Your task to perform on an android device: change timer sound Image 0: 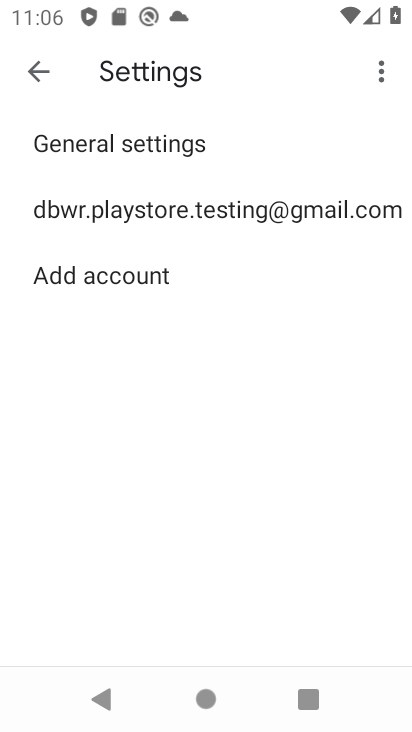
Step 0: click (36, 62)
Your task to perform on an android device: change timer sound Image 1: 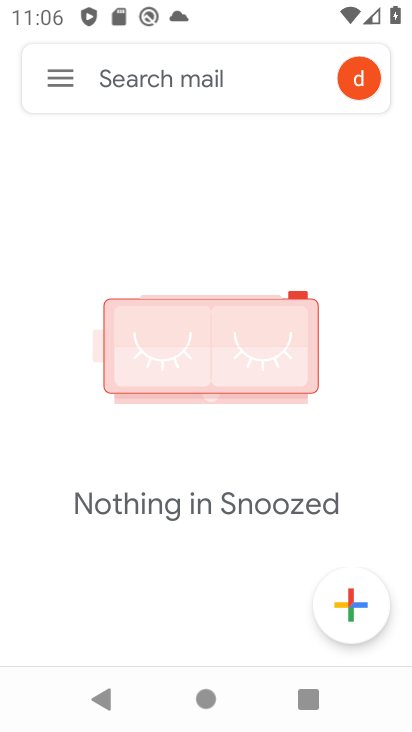
Step 1: click (36, 71)
Your task to perform on an android device: change timer sound Image 2: 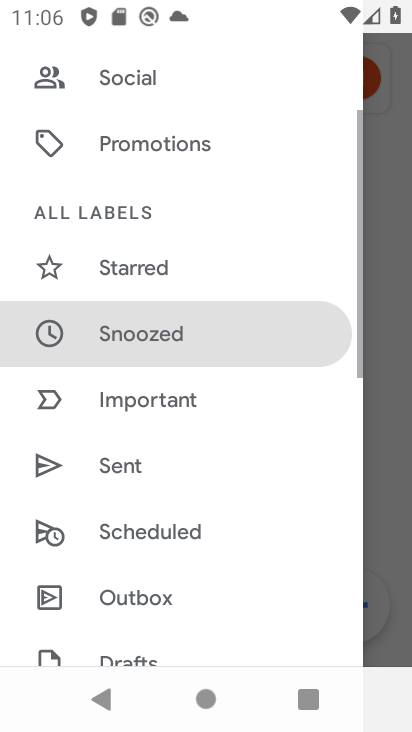
Step 2: press back button
Your task to perform on an android device: change timer sound Image 3: 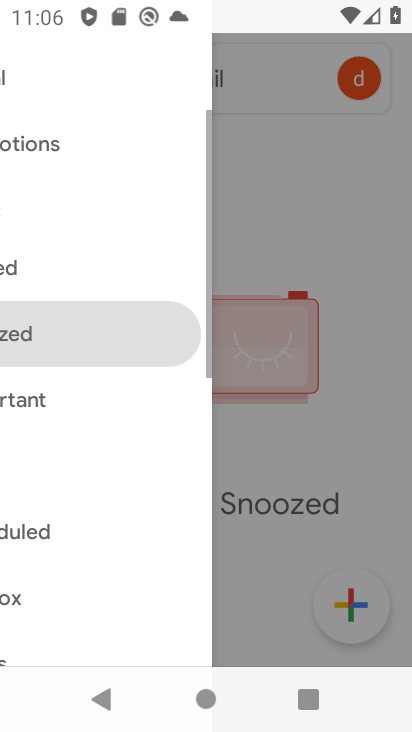
Step 3: press back button
Your task to perform on an android device: change timer sound Image 4: 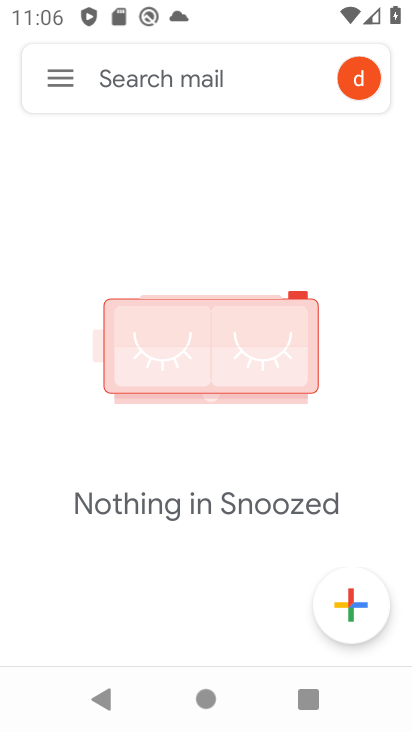
Step 4: press back button
Your task to perform on an android device: change timer sound Image 5: 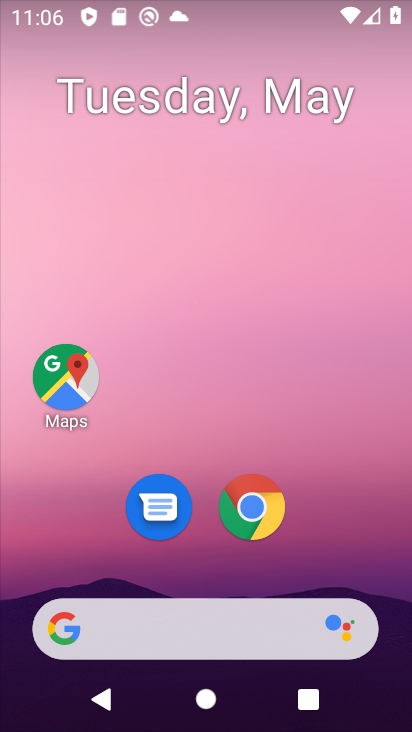
Step 5: drag from (254, 710) to (127, 151)
Your task to perform on an android device: change timer sound Image 6: 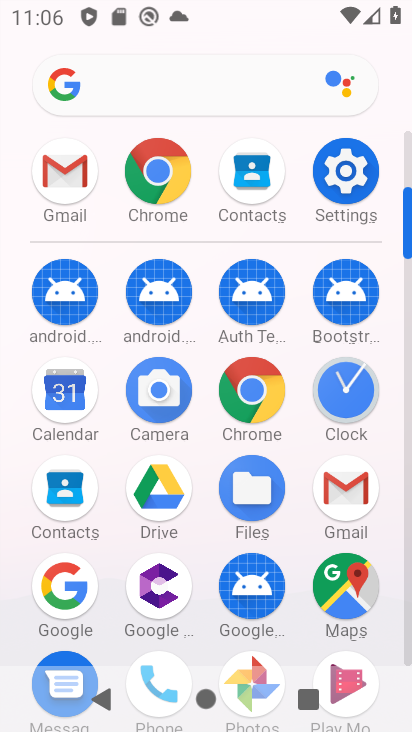
Step 6: click (353, 394)
Your task to perform on an android device: change timer sound Image 7: 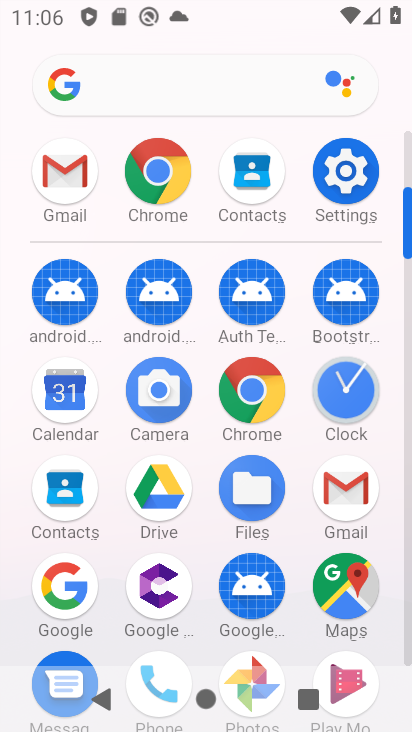
Step 7: click (353, 394)
Your task to perform on an android device: change timer sound Image 8: 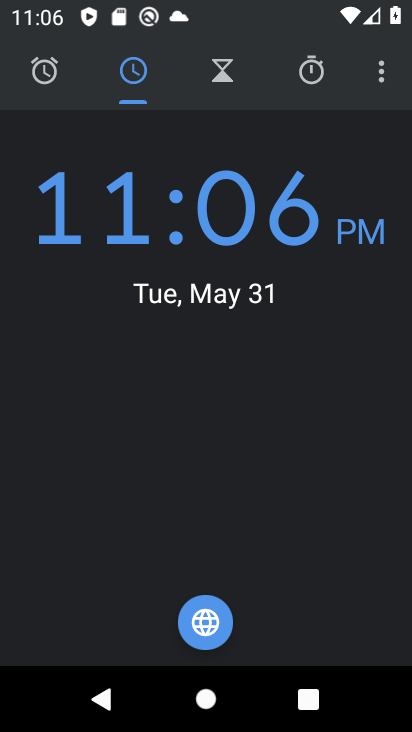
Step 8: click (335, 396)
Your task to perform on an android device: change timer sound Image 9: 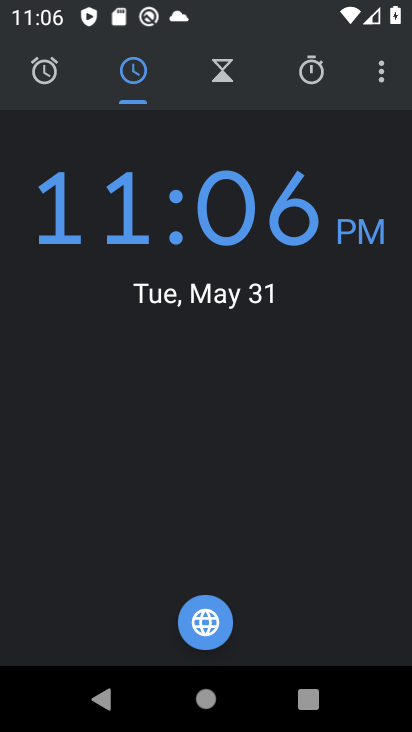
Step 9: click (380, 74)
Your task to perform on an android device: change timer sound Image 10: 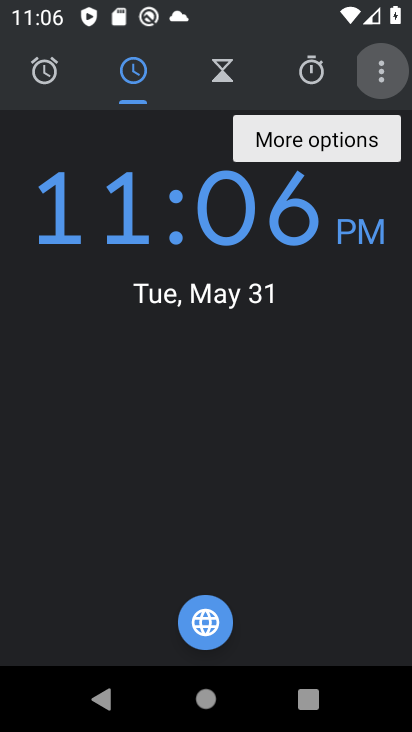
Step 10: click (381, 75)
Your task to perform on an android device: change timer sound Image 11: 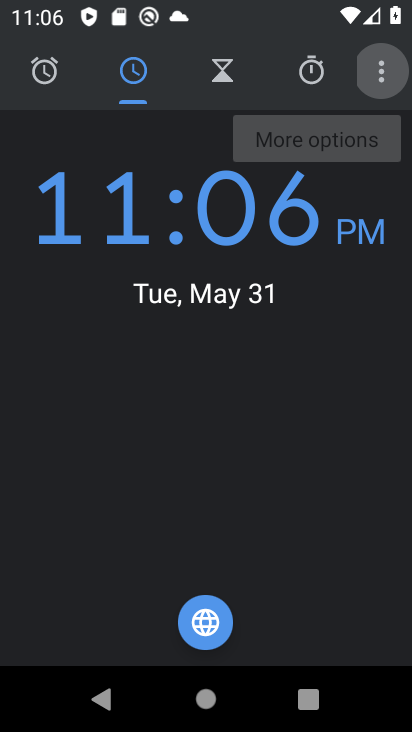
Step 11: drag from (381, 75) to (257, 257)
Your task to perform on an android device: change timer sound Image 12: 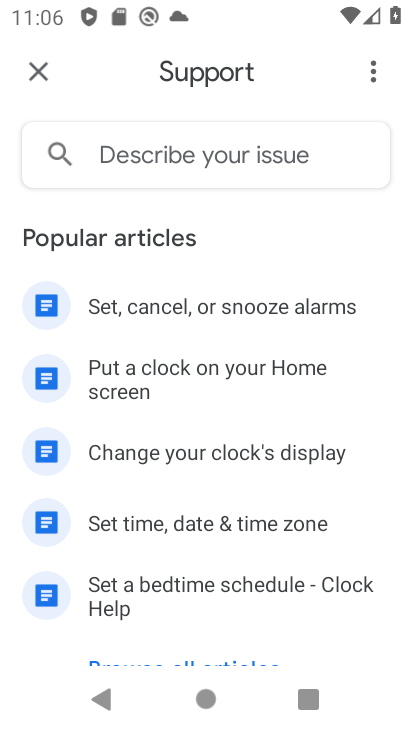
Step 12: click (30, 71)
Your task to perform on an android device: change timer sound Image 13: 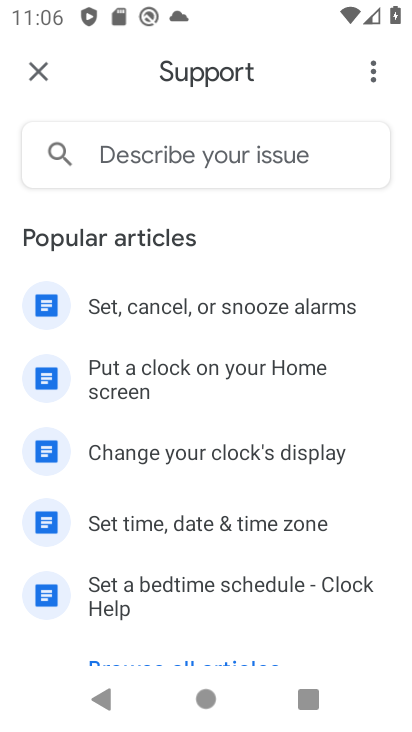
Step 13: click (30, 71)
Your task to perform on an android device: change timer sound Image 14: 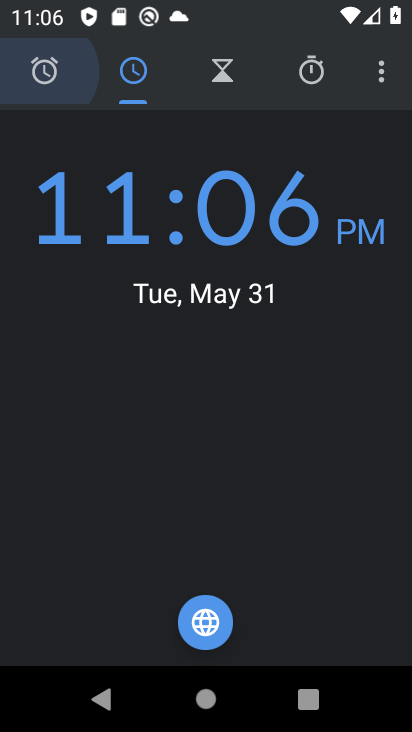
Step 14: click (33, 71)
Your task to perform on an android device: change timer sound Image 15: 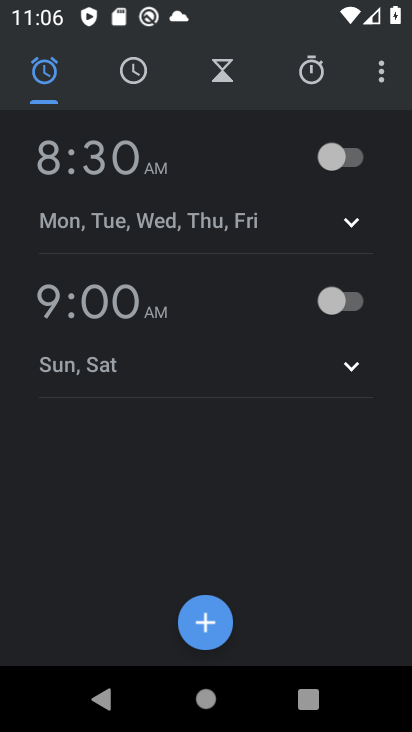
Step 15: click (377, 82)
Your task to perform on an android device: change timer sound Image 16: 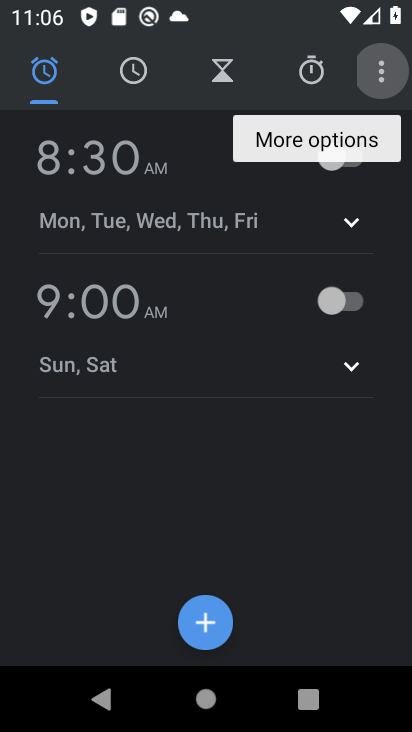
Step 16: click (376, 96)
Your task to perform on an android device: change timer sound Image 17: 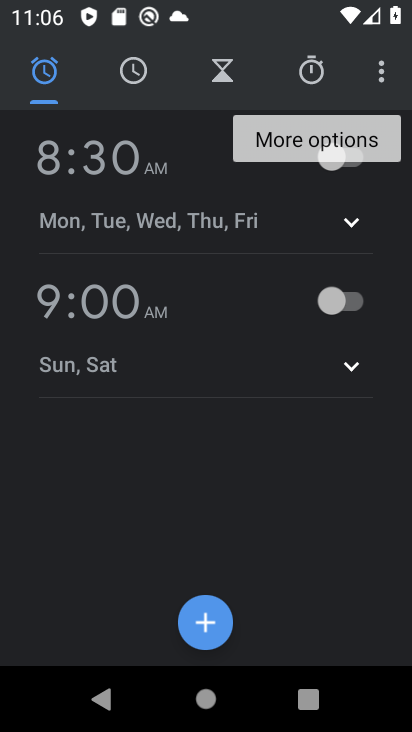
Step 17: click (376, 96)
Your task to perform on an android device: change timer sound Image 18: 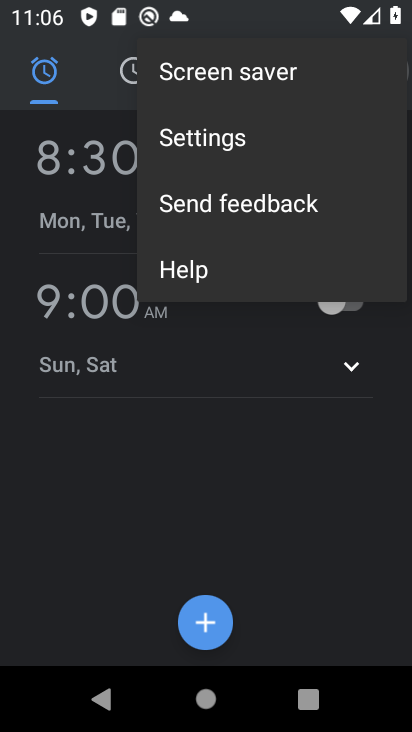
Step 18: drag from (377, 95) to (207, 142)
Your task to perform on an android device: change timer sound Image 19: 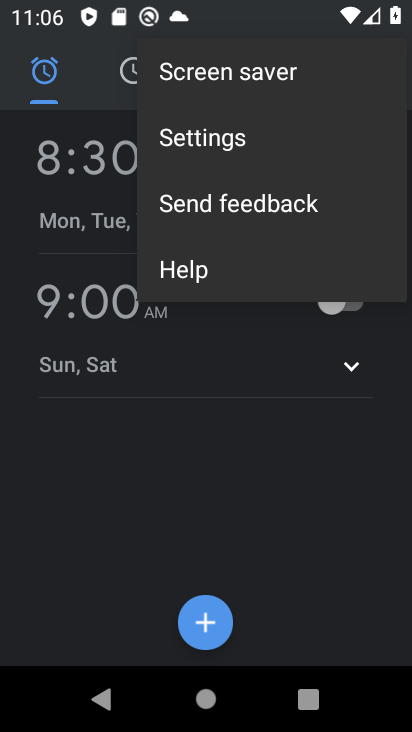
Step 19: click (208, 138)
Your task to perform on an android device: change timer sound Image 20: 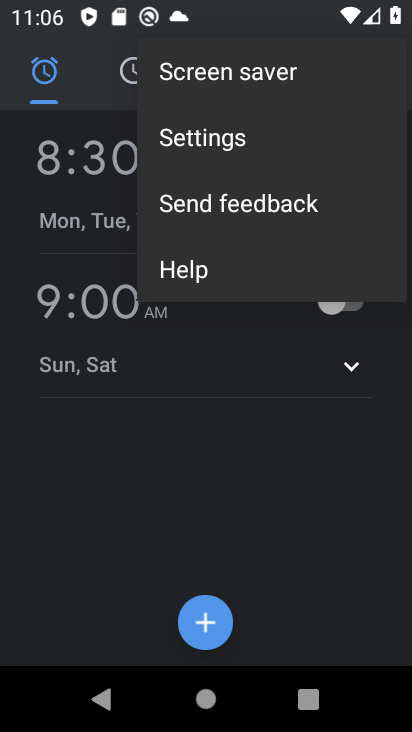
Step 20: click (208, 138)
Your task to perform on an android device: change timer sound Image 21: 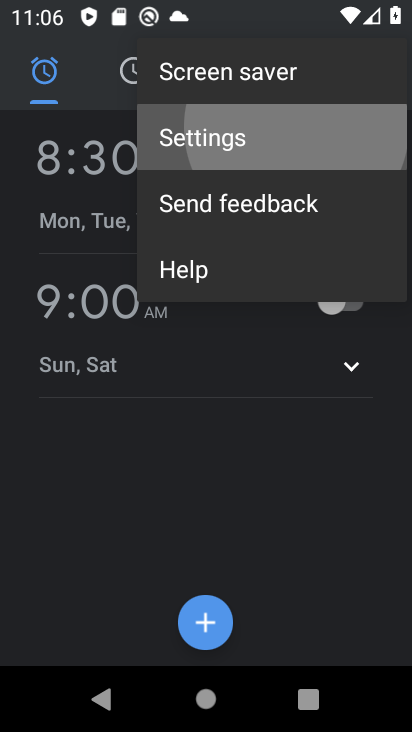
Step 21: click (208, 135)
Your task to perform on an android device: change timer sound Image 22: 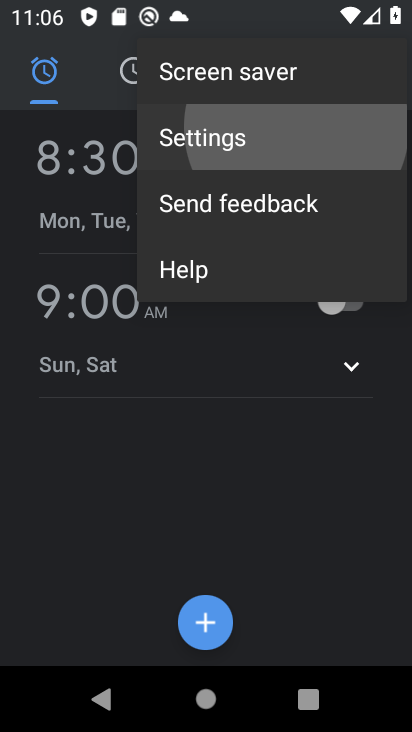
Step 22: click (208, 133)
Your task to perform on an android device: change timer sound Image 23: 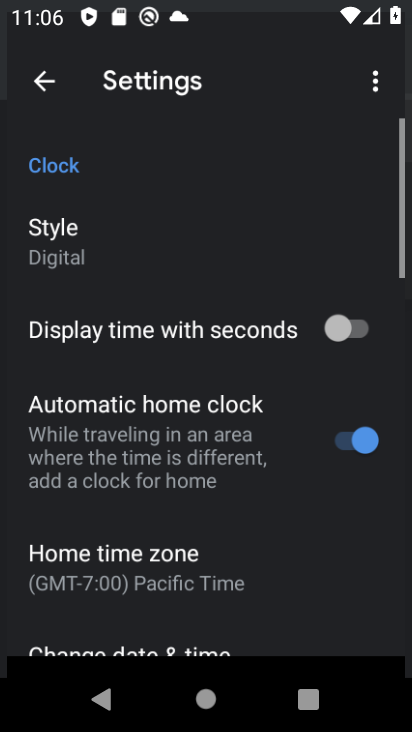
Step 23: click (208, 133)
Your task to perform on an android device: change timer sound Image 24: 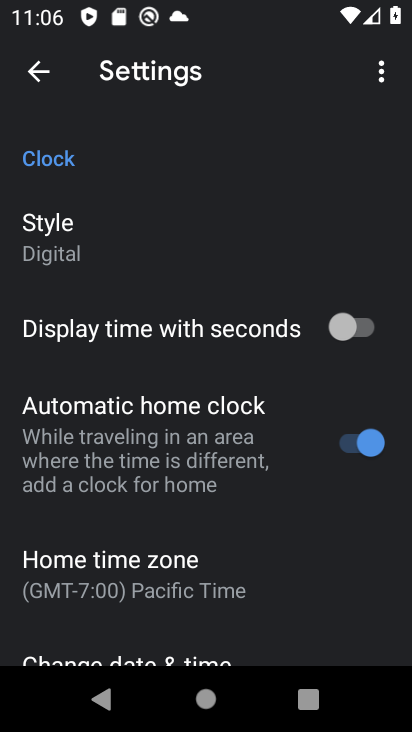
Step 24: drag from (203, 505) to (199, 137)
Your task to perform on an android device: change timer sound Image 25: 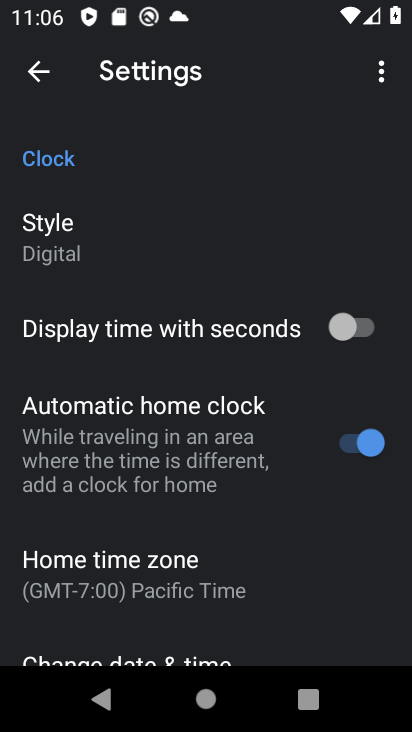
Step 25: drag from (242, 475) to (202, 182)
Your task to perform on an android device: change timer sound Image 26: 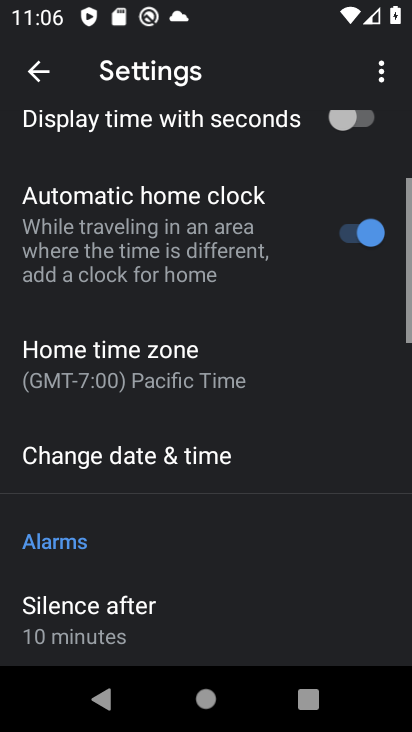
Step 26: drag from (227, 474) to (221, 240)
Your task to perform on an android device: change timer sound Image 27: 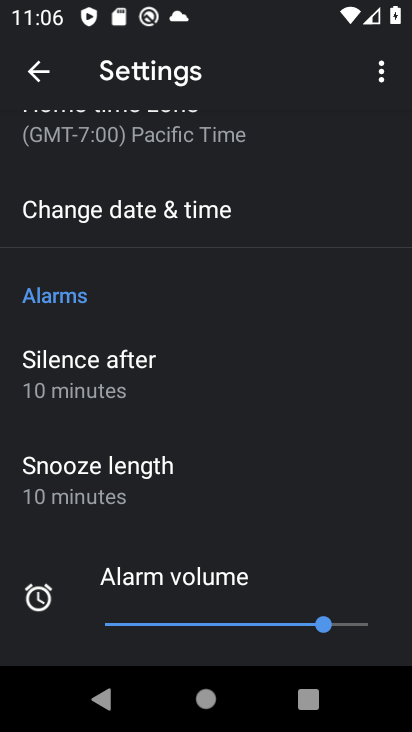
Step 27: drag from (140, 250) to (145, 440)
Your task to perform on an android device: change timer sound Image 28: 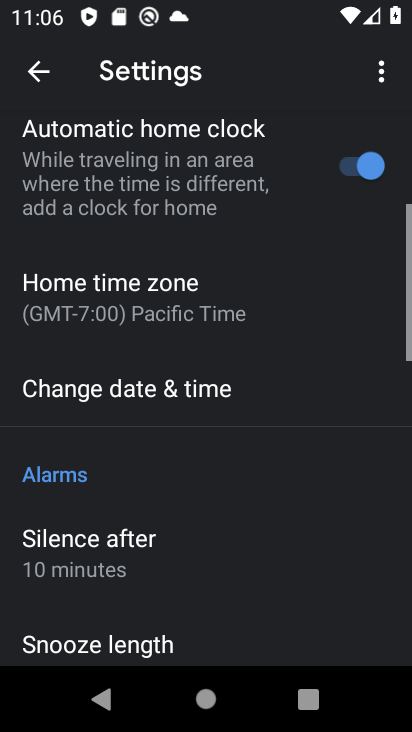
Step 28: drag from (149, 308) to (188, 471)
Your task to perform on an android device: change timer sound Image 29: 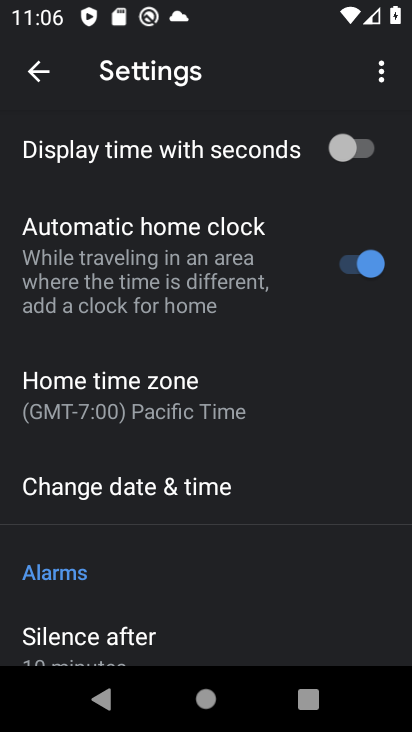
Step 29: drag from (197, 504) to (255, 108)
Your task to perform on an android device: change timer sound Image 30: 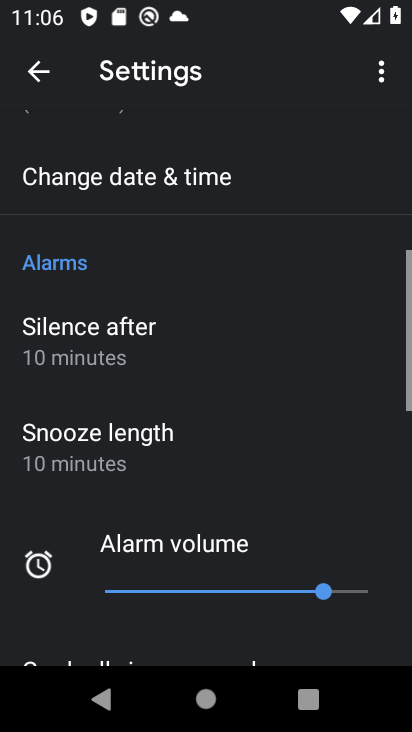
Step 30: drag from (239, 383) to (278, 158)
Your task to perform on an android device: change timer sound Image 31: 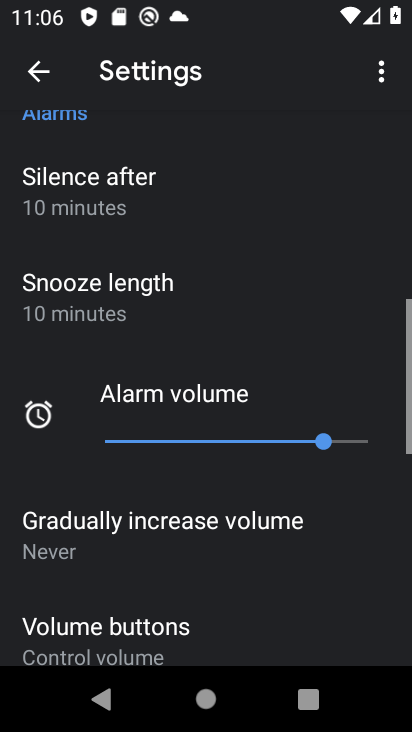
Step 31: drag from (195, 440) to (266, 95)
Your task to perform on an android device: change timer sound Image 32: 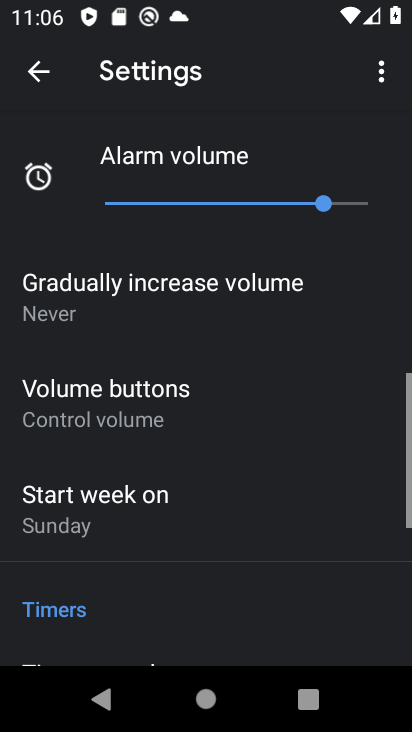
Step 32: drag from (235, 421) to (312, 90)
Your task to perform on an android device: change timer sound Image 33: 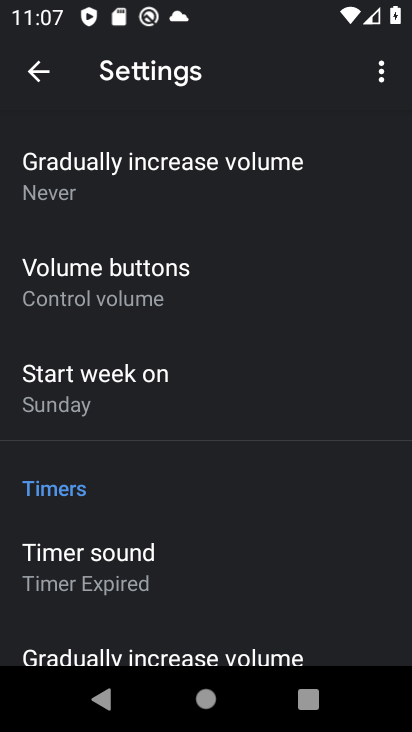
Step 33: click (139, 547)
Your task to perform on an android device: change timer sound Image 34: 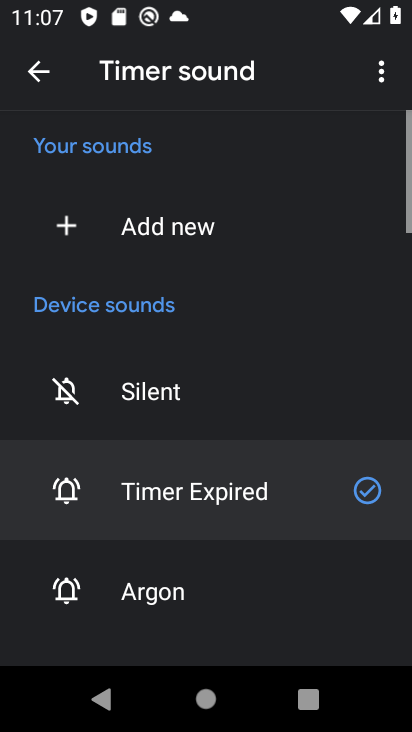
Step 34: click (55, 596)
Your task to perform on an android device: change timer sound Image 35: 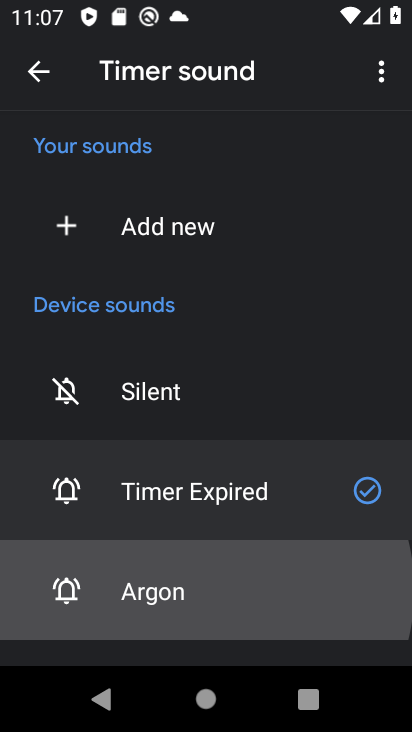
Step 35: click (55, 596)
Your task to perform on an android device: change timer sound Image 36: 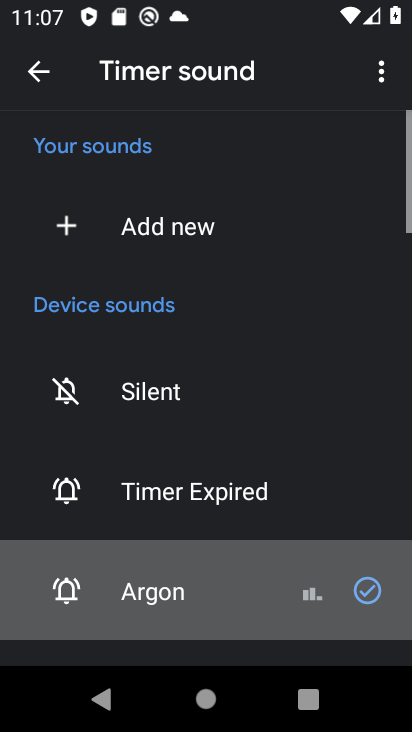
Step 36: click (54, 595)
Your task to perform on an android device: change timer sound Image 37: 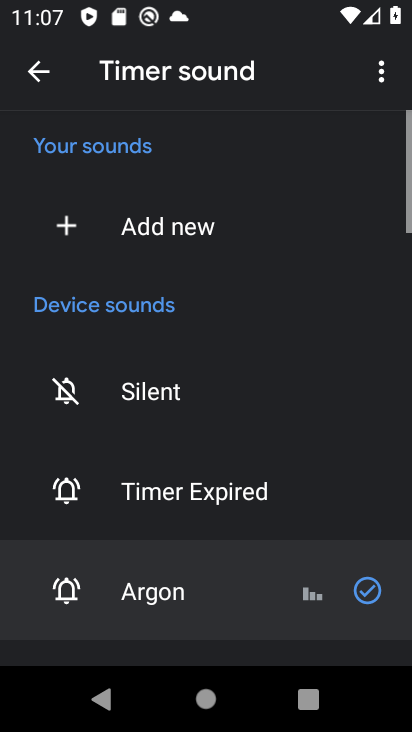
Step 37: task complete